Your task to perform on an android device: toggle data saver in the chrome app Image 0: 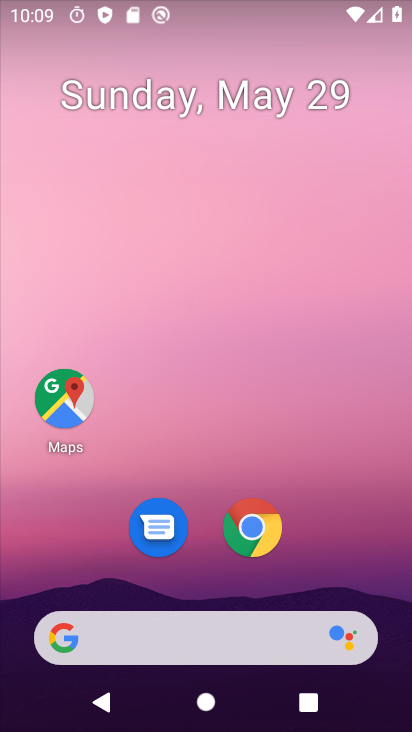
Step 0: click (253, 533)
Your task to perform on an android device: toggle data saver in the chrome app Image 1: 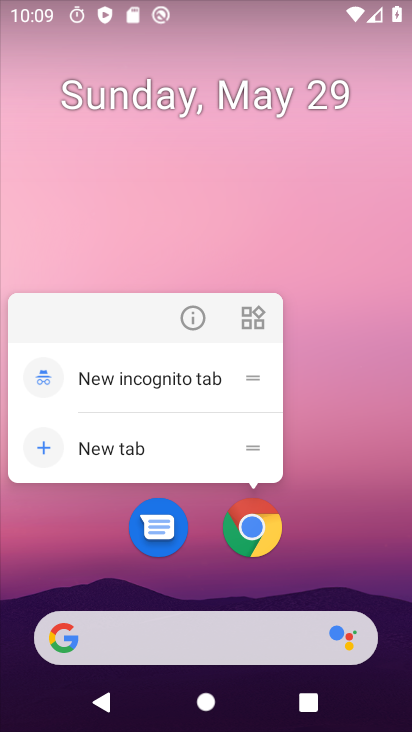
Step 1: click (253, 533)
Your task to perform on an android device: toggle data saver in the chrome app Image 2: 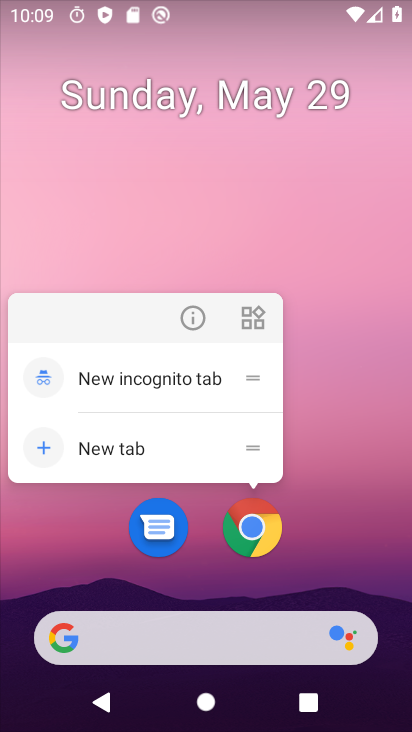
Step 2: click (380, 548)
Your task to perform on an android device: toggle data saver in the chrome app Image 3: 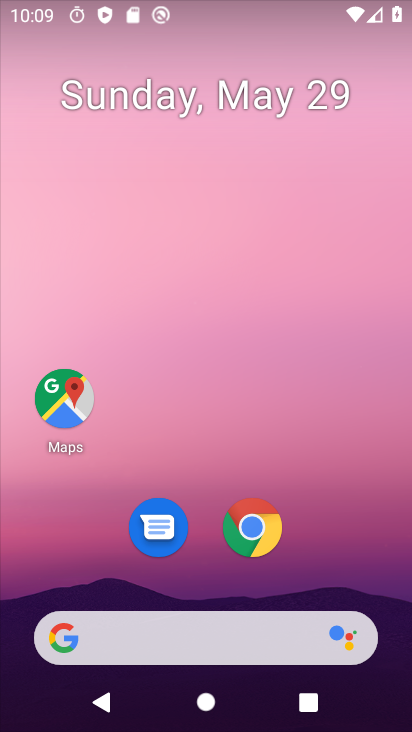
Step 3: drag from (364, 539) to (344, 39)
Your task to perform on an android device: toggle data saver in the chrome app Image 4: 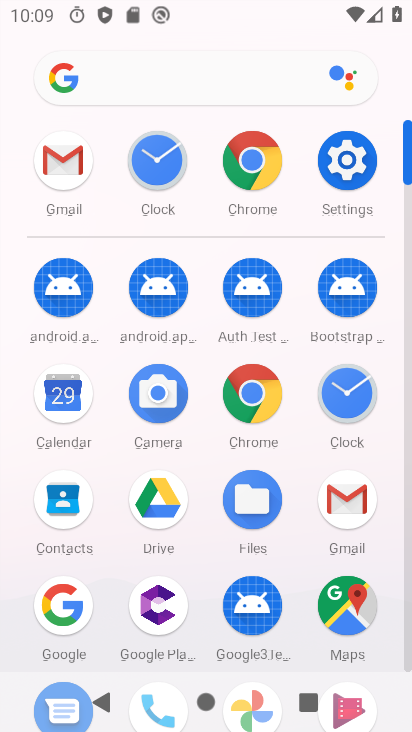
Step 4: click (245, 399)
Your task to perform on an android device: toggle data saver in the chrome app Image 5: 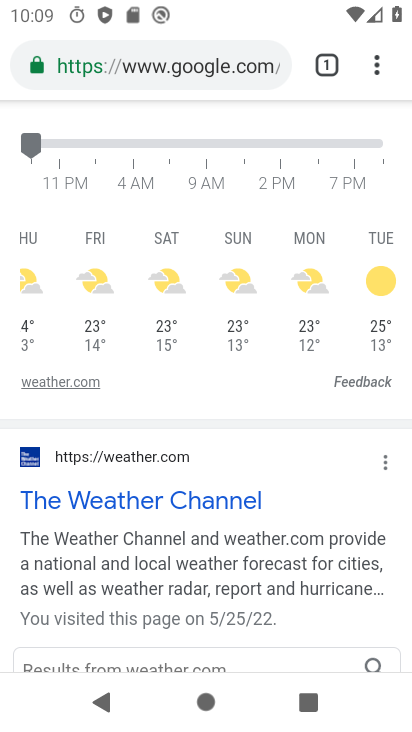
Step 5: drag from (384, 66) to (272, 578)
Your task to perform on an android device: toggle data saver in the chrome app Image 6: 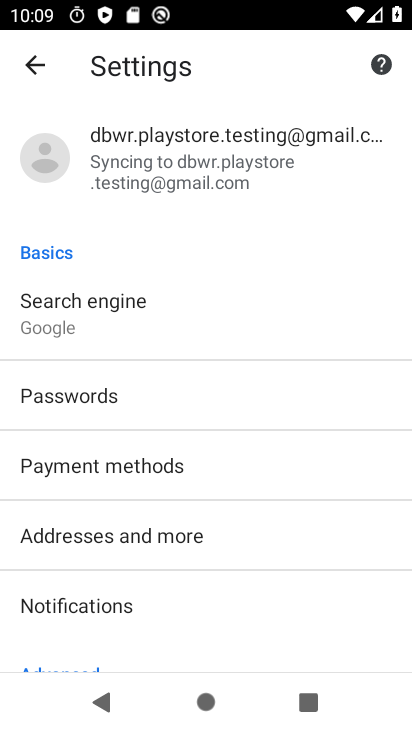
Step 6: drag from (280, 484) to (268, 52)
Your task to perform on an android device: toggle data saver in the chrome app Image 7: 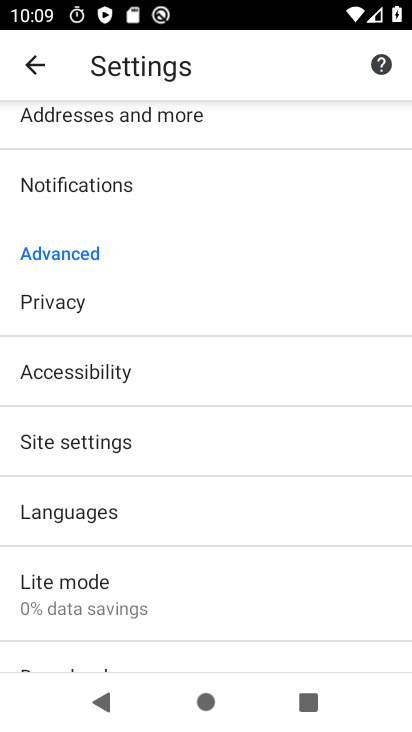
Step 7: drag from (135, 404) to (208, 99)
Your task to perform on an android device: toggle data saver in the chrome app Image 8: 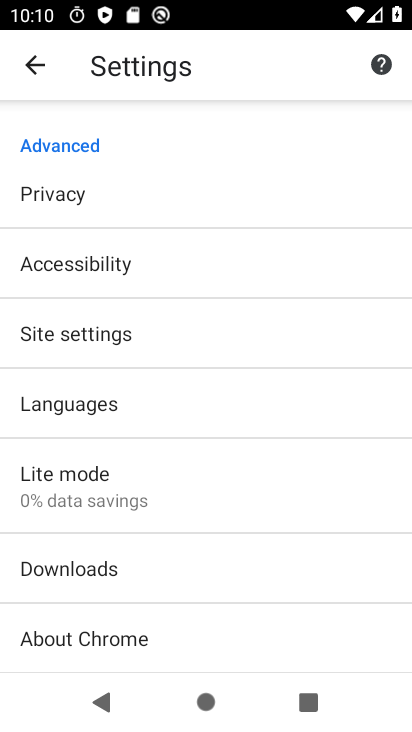
Step 8: click (84, 465)
Your task to perform on an android device: toggle data saver in the chrome app Image 9: 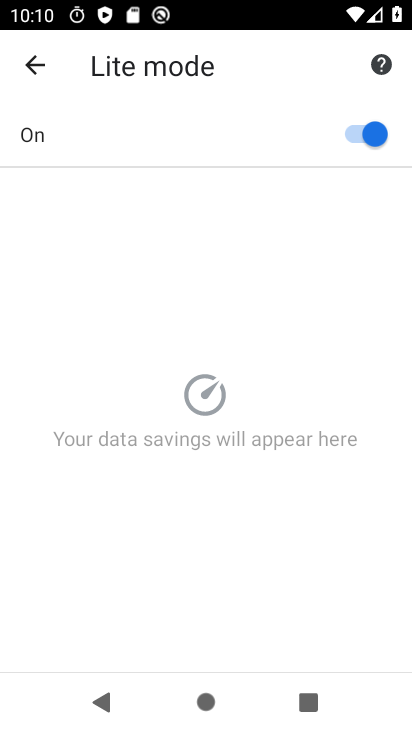
Step 9: click (363, 133)
Your task to perform on an android device: toggle data saver in the chrome app Image 10: 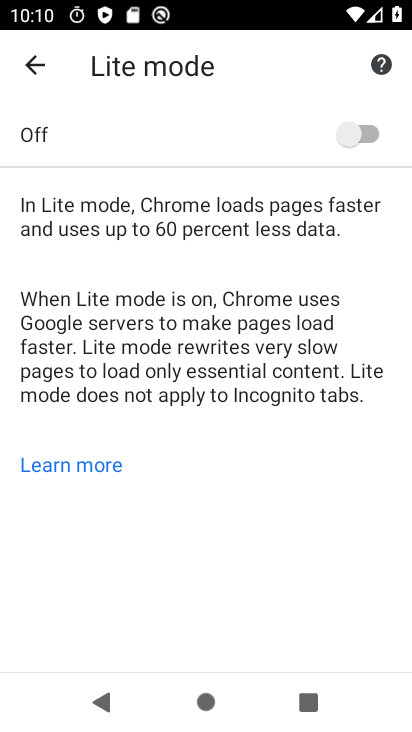
Step 10: task complete